Your task to perform on an android device: Open Google Image 0: 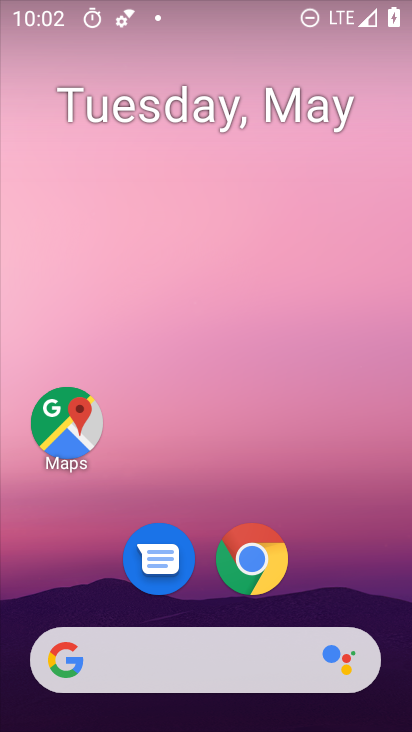
Step 0: drag from (396, 630) to (384, 280)
Your task to perform on an android device: Open Google Image 1: 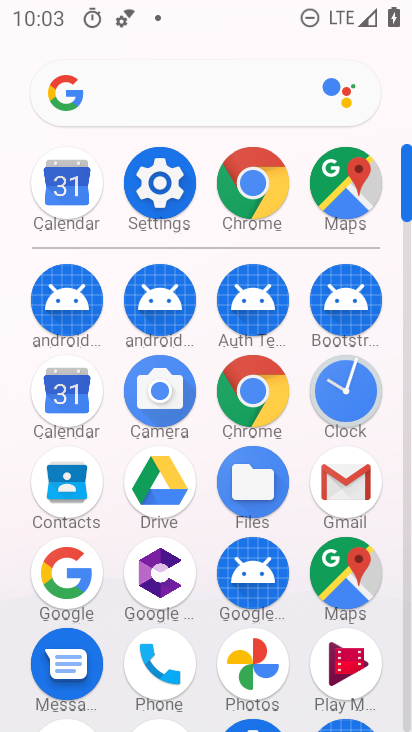
Step 1: click (72, 572)
Your task to perform on an android device: Open Google Image 2: 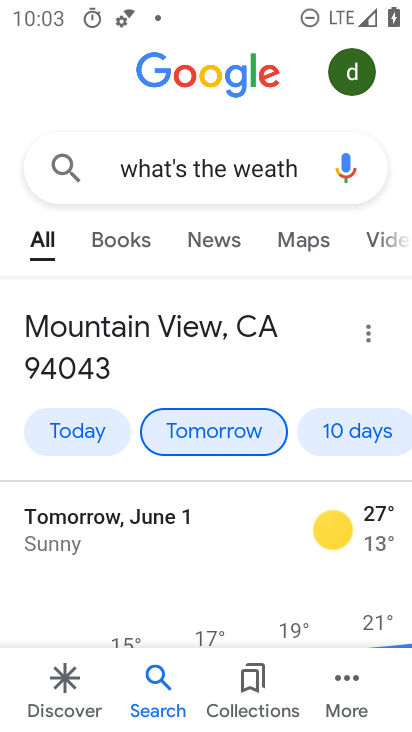
Step 2: task complete